Your task to perform on an android device: When is my next meeting? Image 0: 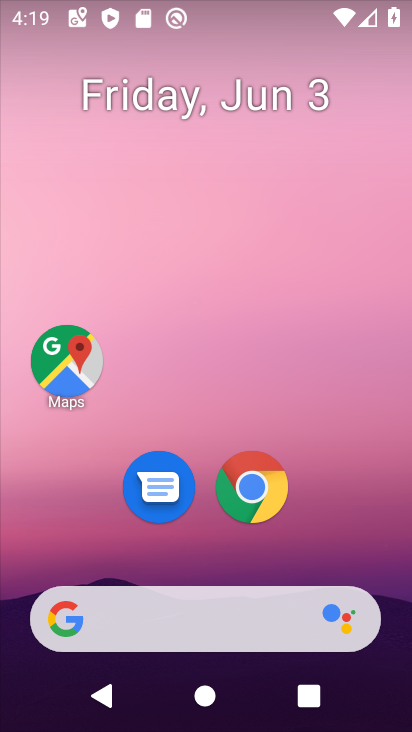
Step 0: drag from (206, 481) to (265, 100)
Your task to perform on an android device: When is my next meeting? Image 1: 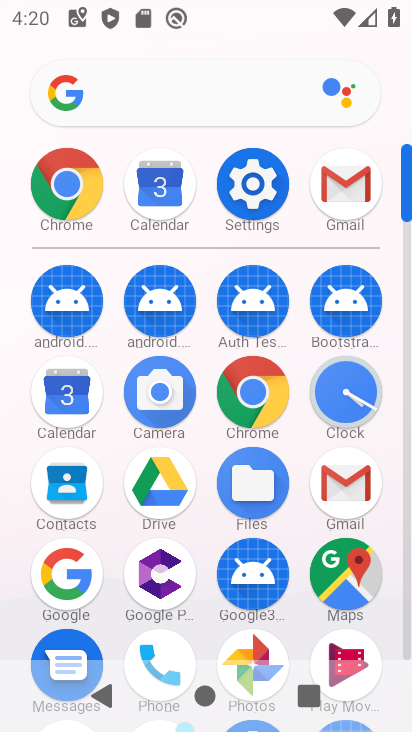
Step 1: click (77, 385)
Your task to perform on an android device: When is my next meeting? Image 2: 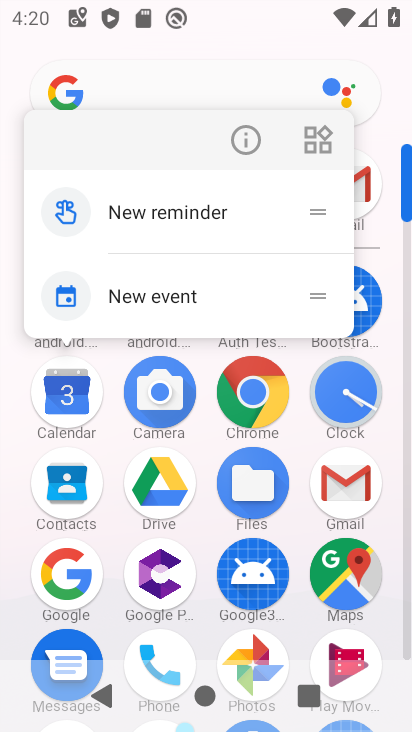
Step 2: click (265, 131)
Your task to perform on an android device: When is my next meeting? Image 3: 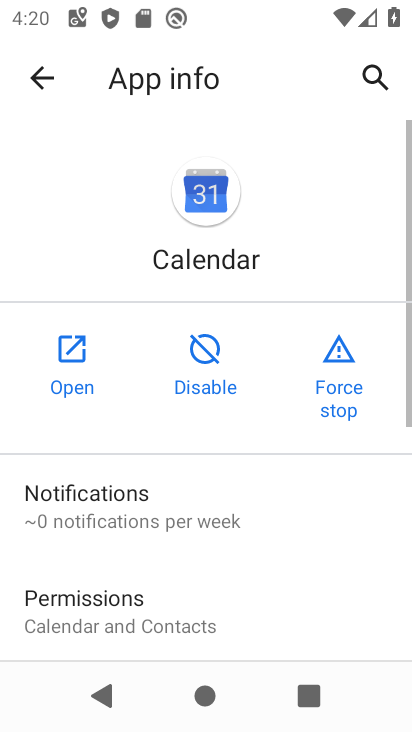
Step 3: click (56, 359)
Your task to perform on an android device: When is my next meeting? Image 4: 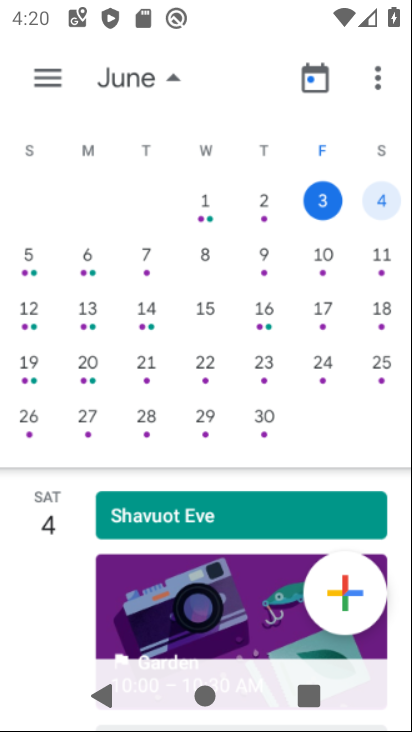
Step 4: drag from (210, 541) to (267, 226)
Your task to perform on an android device: When is my next meeting? Image 5: 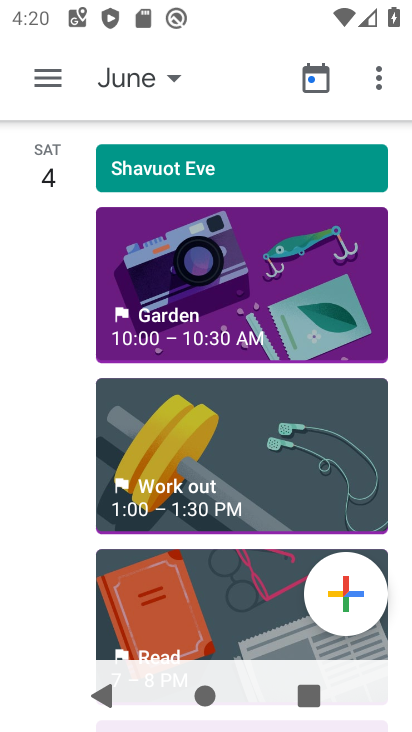
Step 5: drag from (274, 156) to (359, 682)
Your task to perform on an android device: When is my next meeting? Image 6: 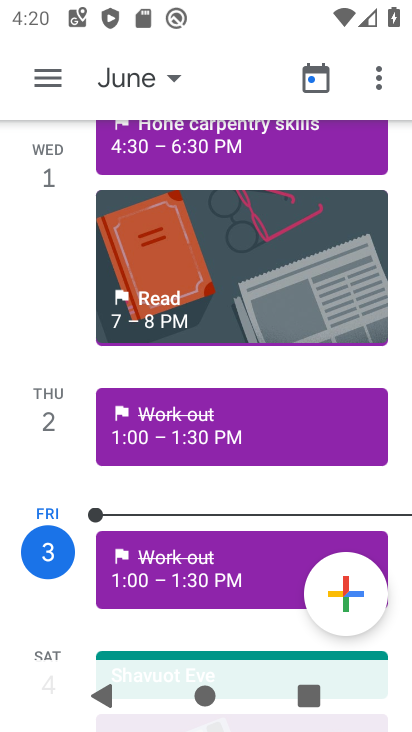
Step 6: click (148, 96)
Your task to perform on an android device: When is my next meeting? Image 7: 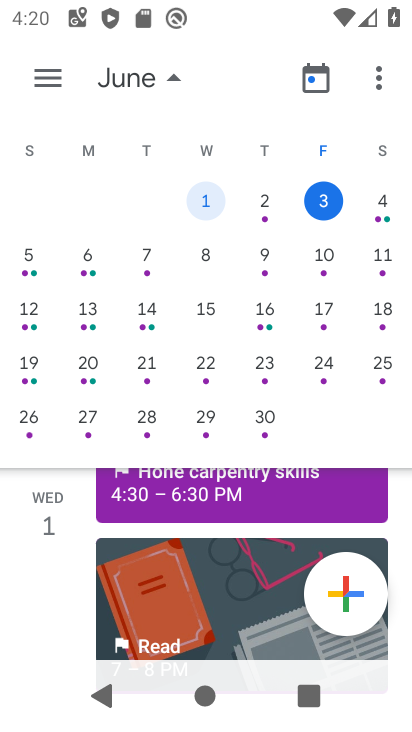
Step 7: click (324, 190)
Your task to perform on an android device: When is my next meeting? Image 8: 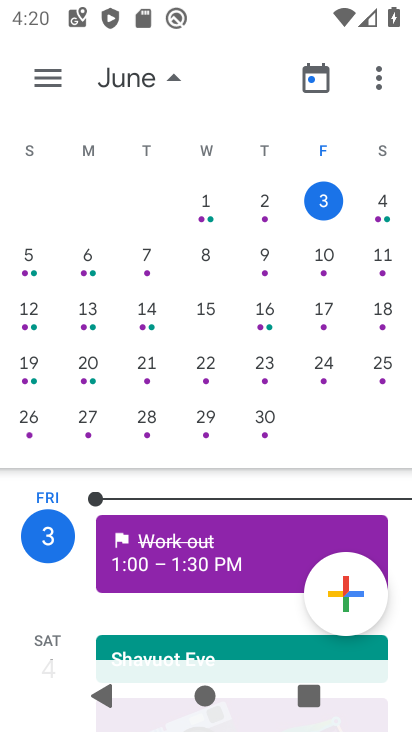
Step 8: task complete